Your task to perform on an android device: read, delete, or share a saved page in the chrome app Image 0: 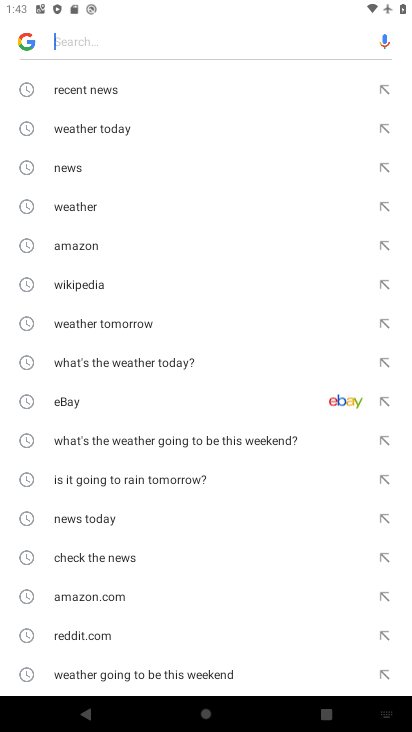
Step 0: press home button
Your task to perform on an android device: read, delete, or share a saved page in the chrome app Image 1: 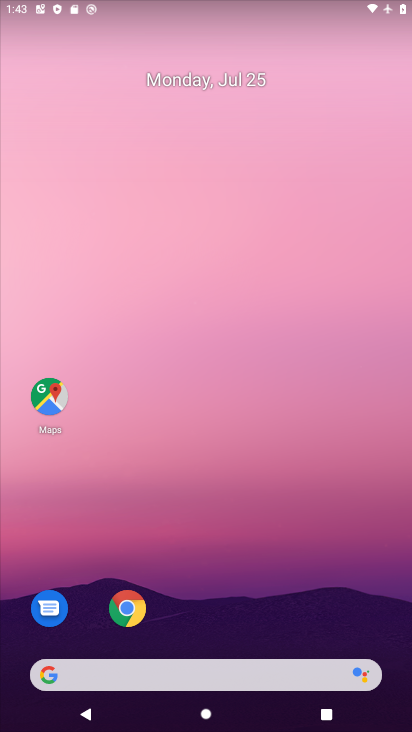
Step 1: drag from (167, 612) to (288, 147)
Your task to perform on an android device: read, delete, or share a saved page in the chrome app Image 2: 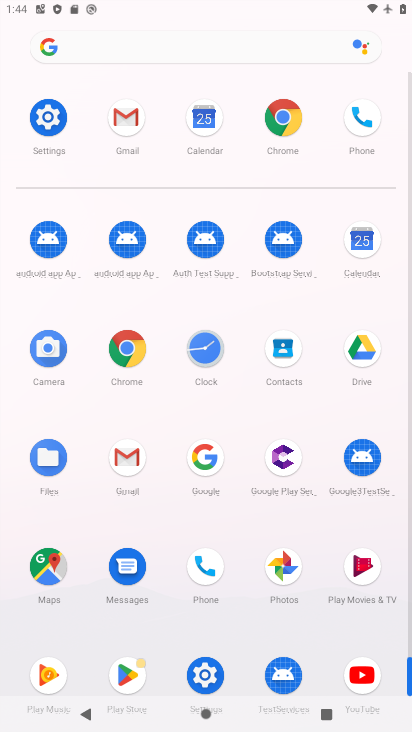
Step 2: click (114, 369)
Your task to perform on an android device: read, delete, or share a saved page in the chrome app Image 3: 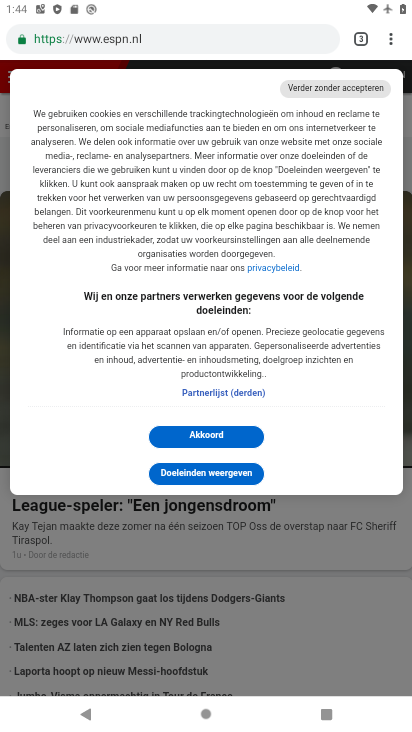
Step 3: click (388, 37)
Your task to perform on an android device: read, delete, or share a saved page in the chrome app Image 4: 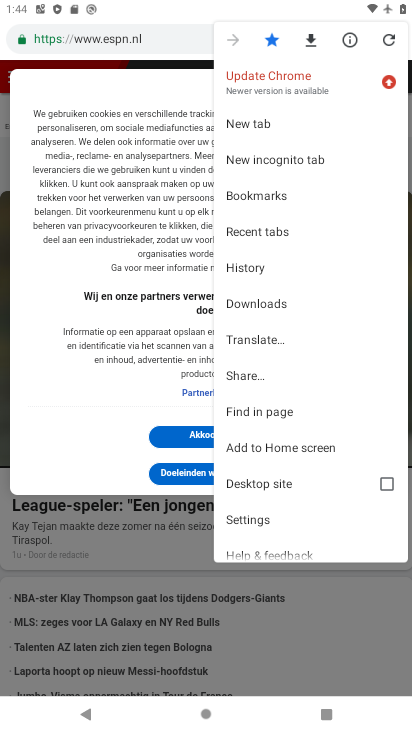
Step 4: click (260, 296)
Your task to perform on an android device: read, delete, or share a saved page in the chrome app Image 5: 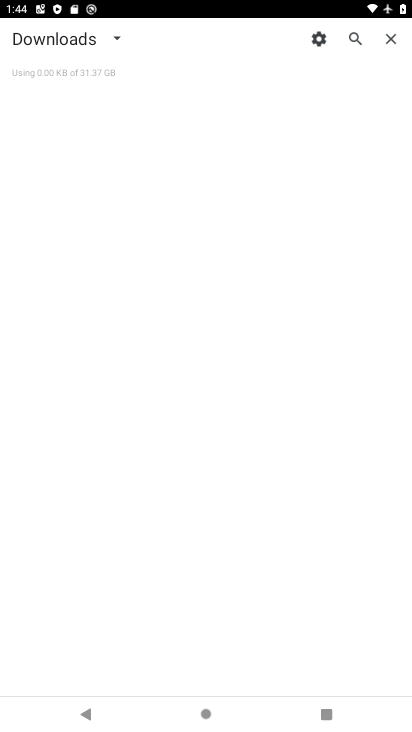
Step 5: click (115, 30)
Your task to perform on an android device: read, delete, or share a saved page in the chrome app Image 6: 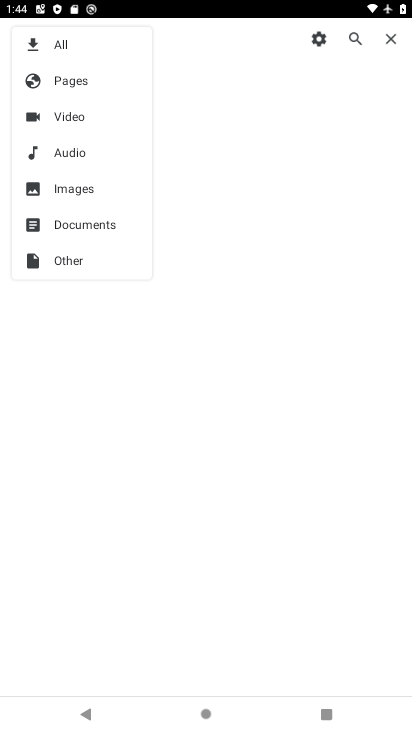
Step 6: click (74, 88)
Your task to perform on an android device: read, delete, or share a saved page in the chrome app Image 7: 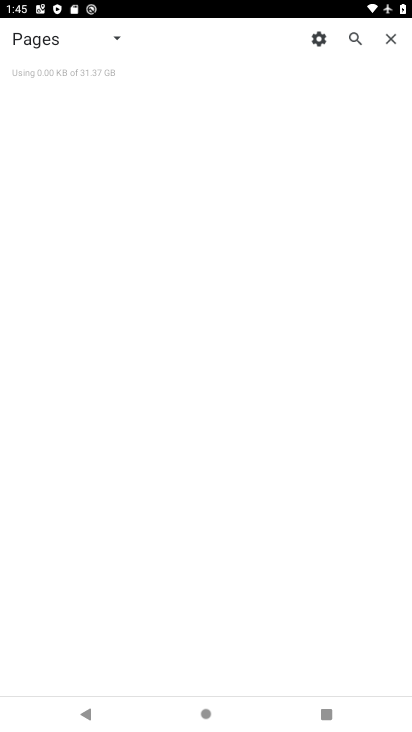
Step 7: task complete